Your task to perform on an android device: Go to Amazon Image 0: 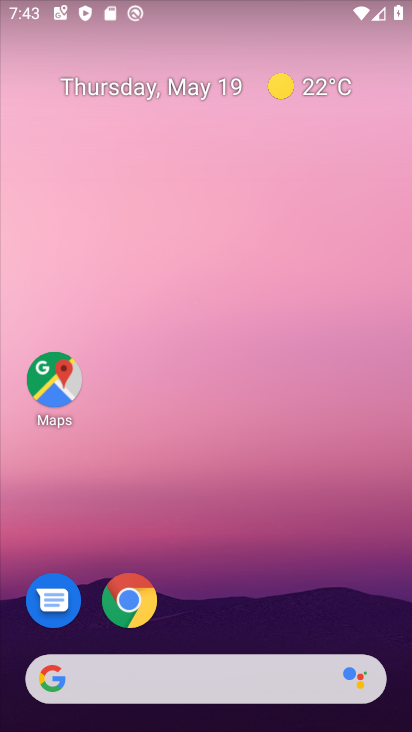
Step 0: drag from (287, 573) to (275, 278)
Your task to perform on an android device: Go to Amazon Image 1: 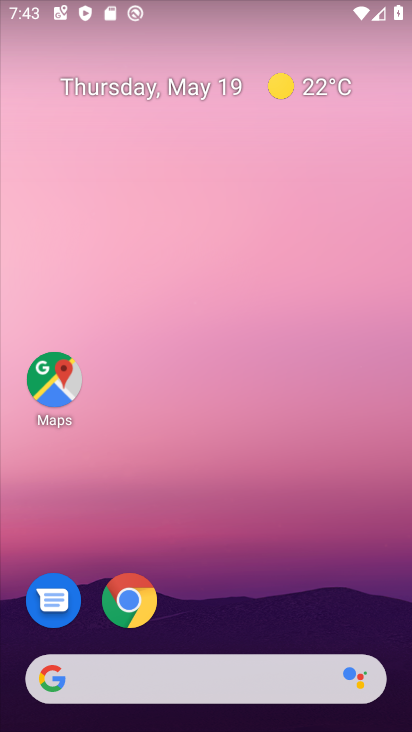
Step 1: click (130, 617)
Your task to perform on an android device: Go to Amazon Image 2: 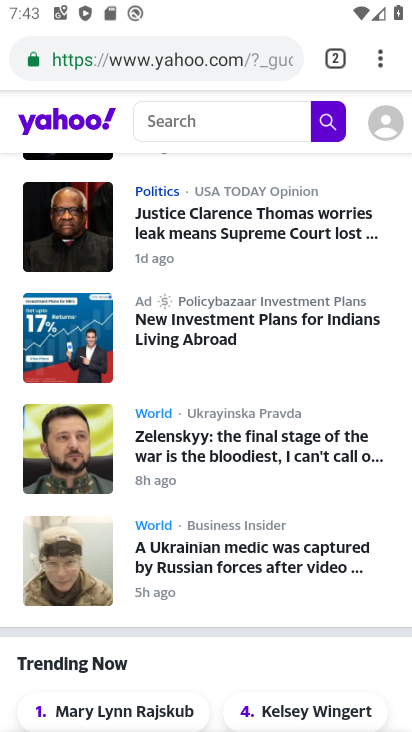
Step 2: click (113, 64)
Your task to perform on an android device: Go to Amazon Image 3: 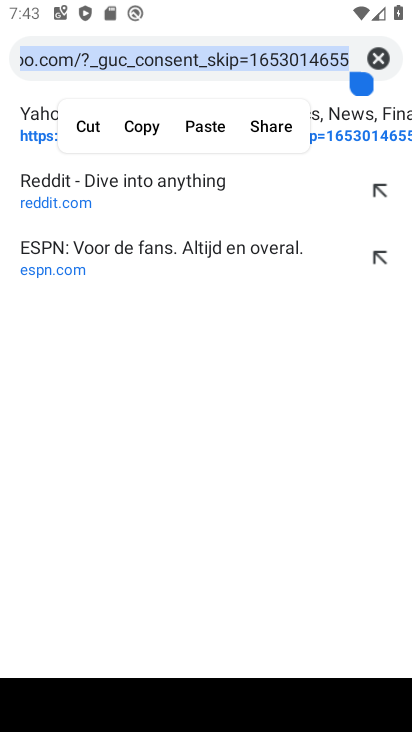
Step 3: click (384, 61)
Your task to perform on an android device: Go to Amazon Image 4: 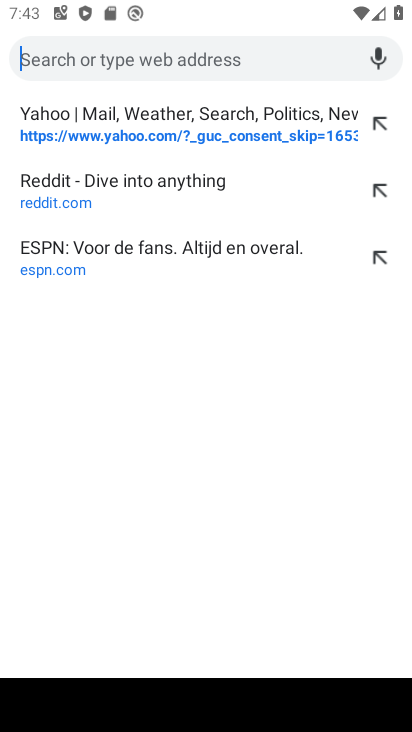
Step 4: type "amazon "
Your task to perform on an android device: Go to Amazon Image 5: 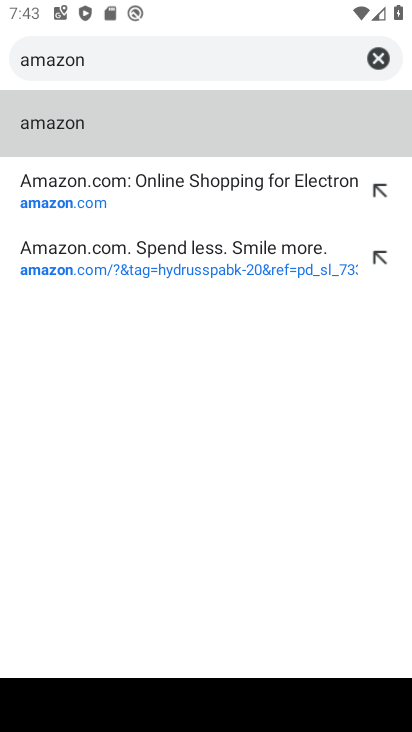
Step 5: click (207, 191)
Your task to perform on an android device: Go to Amazon Image 6: 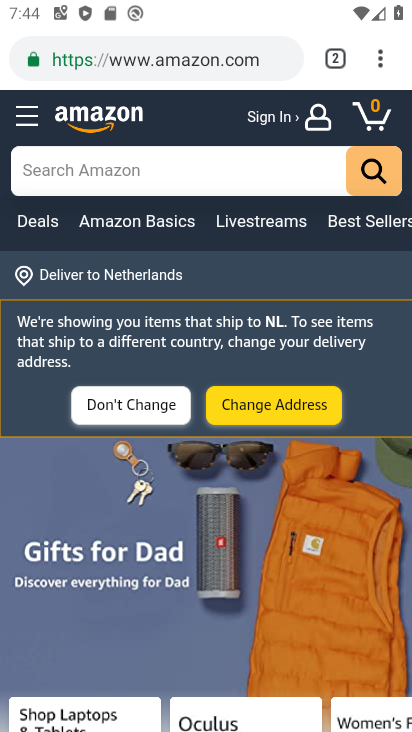
Step 6: task complete